Your task to perform on an android device: manage bookmarks in the chrome app Image 0: 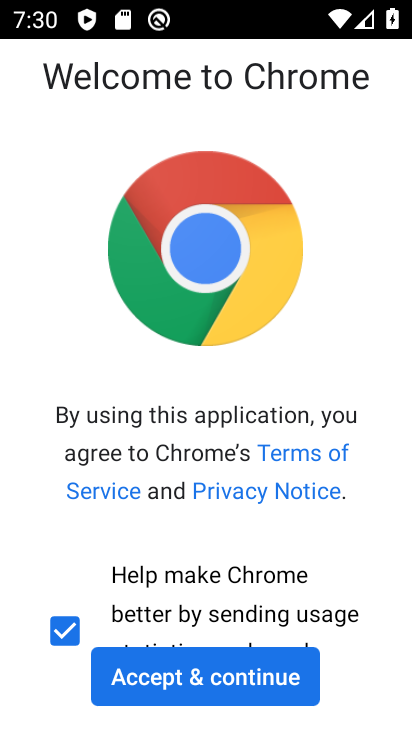
Step 0: click (272, 687)
Your task to perform on an android device: manage bookmarks in the chrome app Image 1: 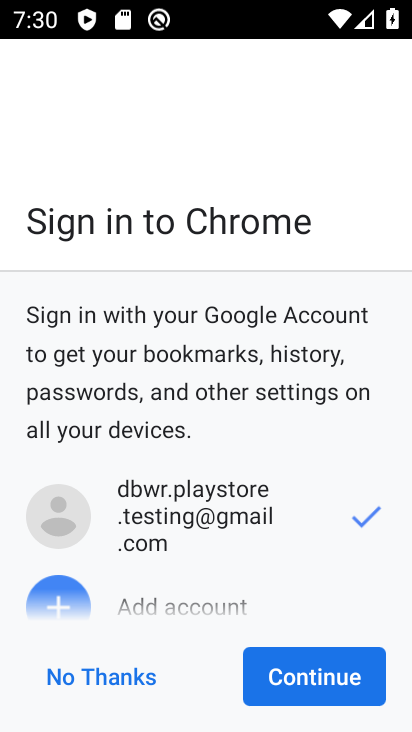
Step 1: click (283, 674)
Your task to perform on an android device: manage bookmarks in the chrome app Image 2: 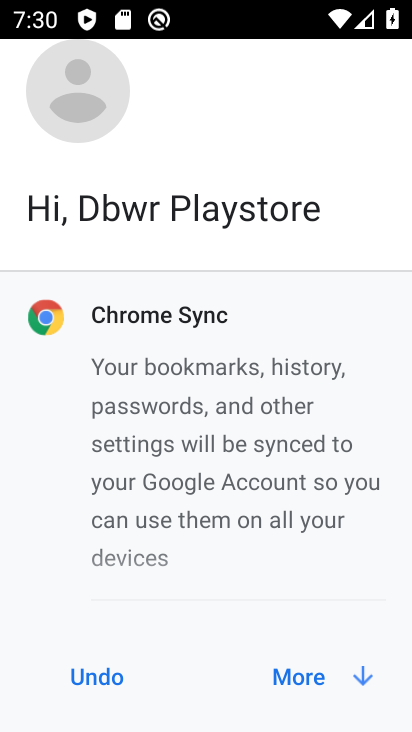
Step 2: click (283, 674)
Your task to perform on an android device: manage bookmarks in the chrome app Image 3: 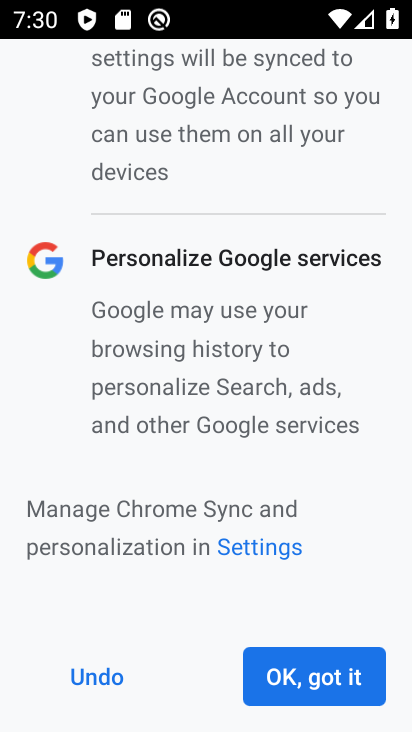
Step 3: click (283, 674)
Your task to perform on an android device: manage bookmarks in the chrome app Image 4: 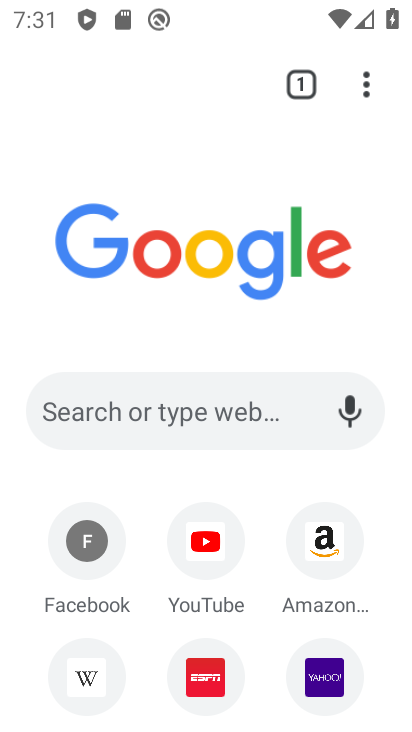
Step 4: click (372, 81)
Your task to perform on an android device: manage bookmarks in the chrome app Image 5: 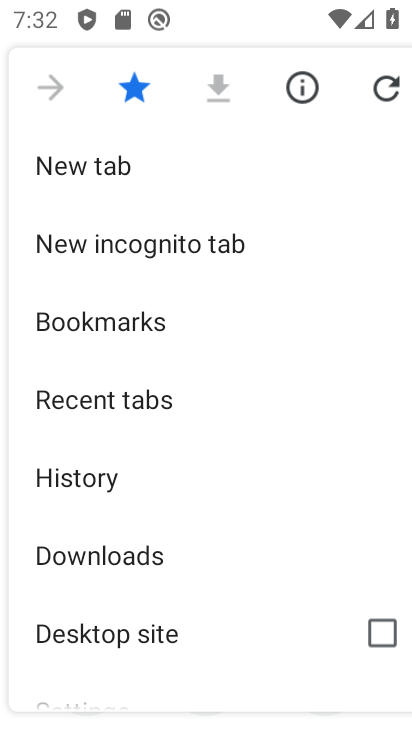
Step 5: click (133, 333)
Your task to perform on an android device: manage bookmarks in the chrome app Image 6: 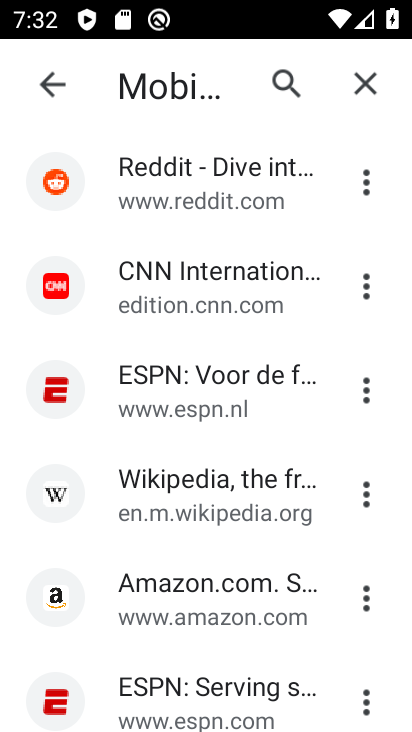
Step 6: click (43, 484)
Your task to perform on an android device: manage bookmarks in the chrome app Image 7: 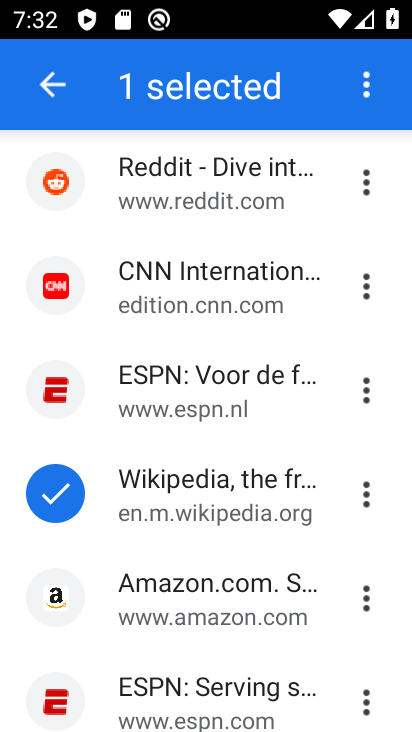
Step 7: click (57, 592)
Your task to perform on an android device: manage bookmarks in the chrome app Image 8: 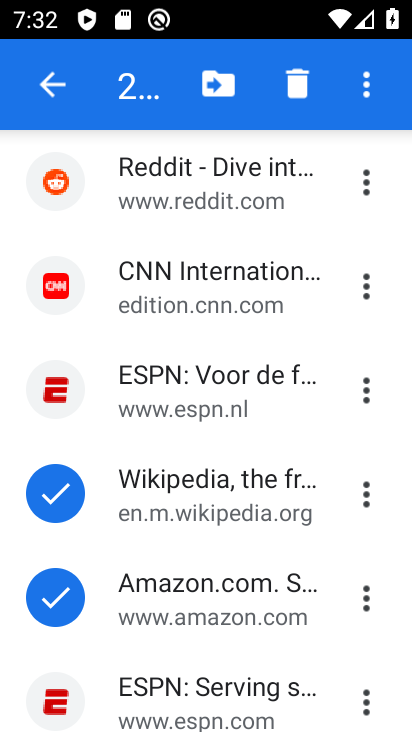
Step 8: click (54, 382)
Your task to perform on an android device: manage bookmarks in the chrome app Image 9: 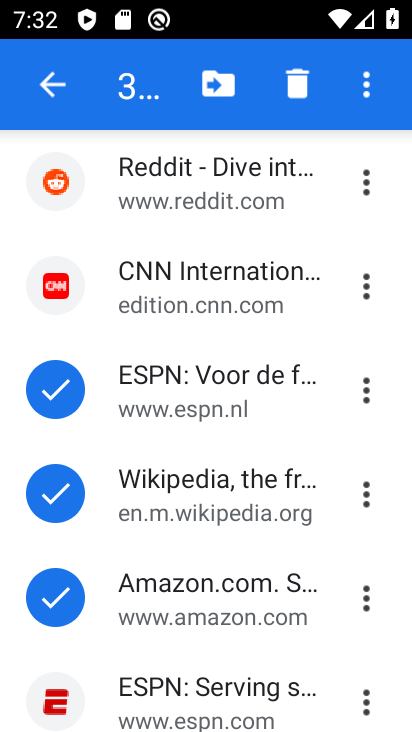
Step 9: click (296, 72)
Your task to perform on an android device: manage bookmarks in the chrome app Image 10: 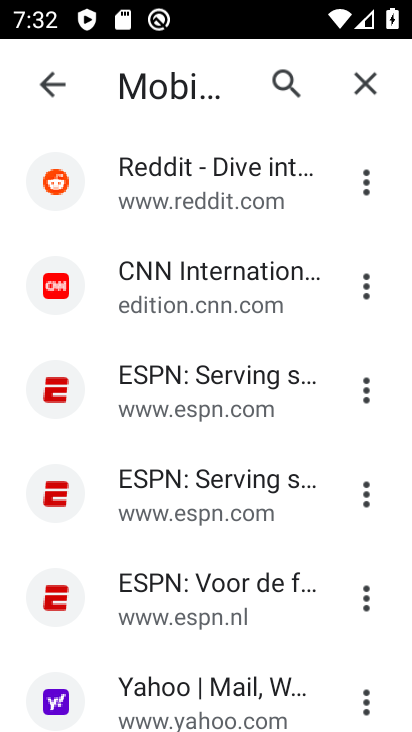
Step 10: click (56, 496)
Your task to perform on an android device: manage bookmarks in the chrome app Image 11: 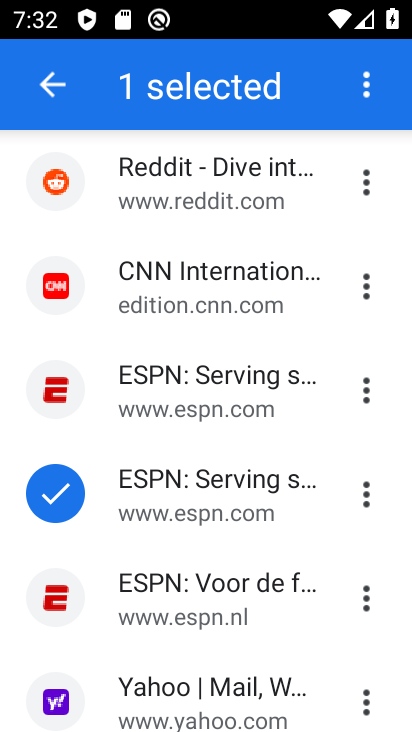
Step 11: click (53, 375)
Your task to perform on an android device: manage bookmarks in the chrome app Image 12: 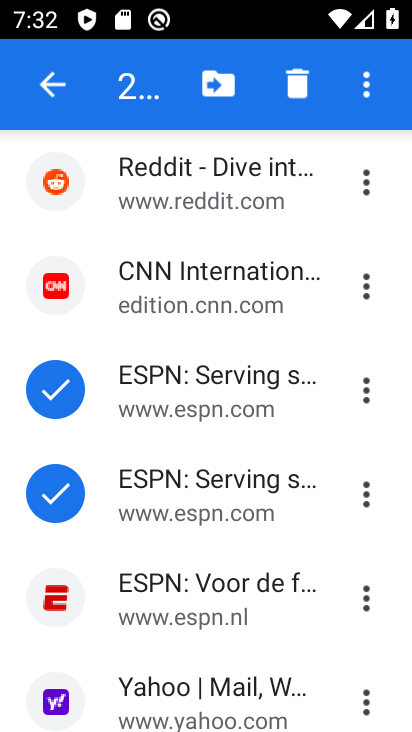
Step 12: click (61, 260)
Your task to perform on an android device: manage bookmarks in the chrome app Image 13: 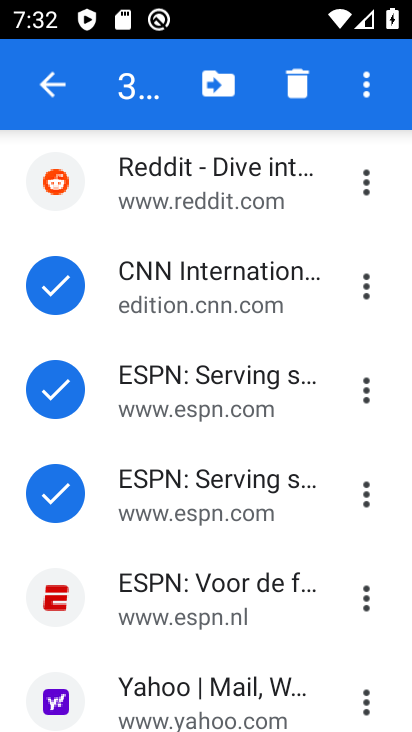
Step 13: click (47, 181)
Your task to perform on an android device: manage bookmarks in the chrome app Image 14: 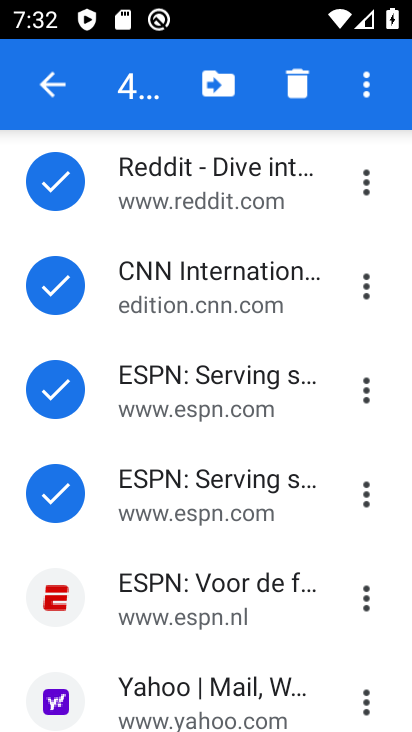
Step 14: click (205, 93)
Your task to perform on an android device: manage bookmarks in the chrome app Image 15: 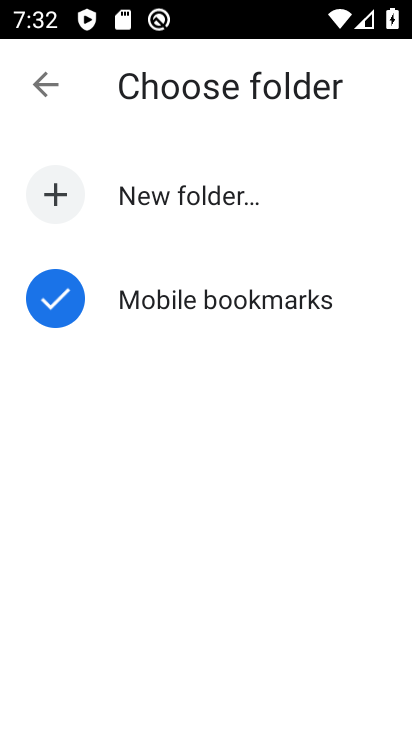
Step 15: click (212, 299)
Your task to perform on an android device: manage bookmarks in the chrome app Image 16: 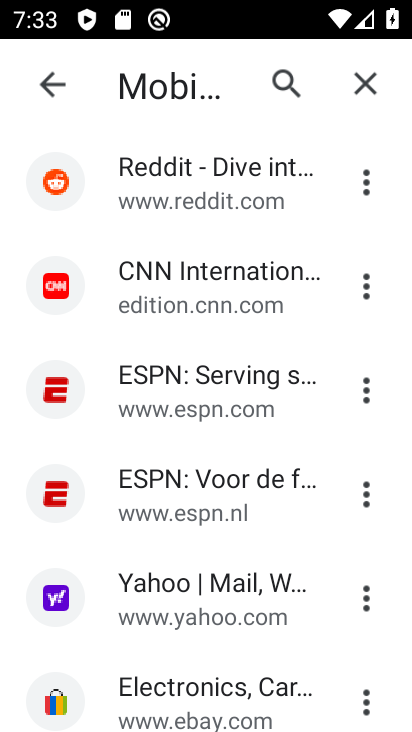
Step 16: task complete